Your task to perform on an android device: open app "Gboard" Image 0: 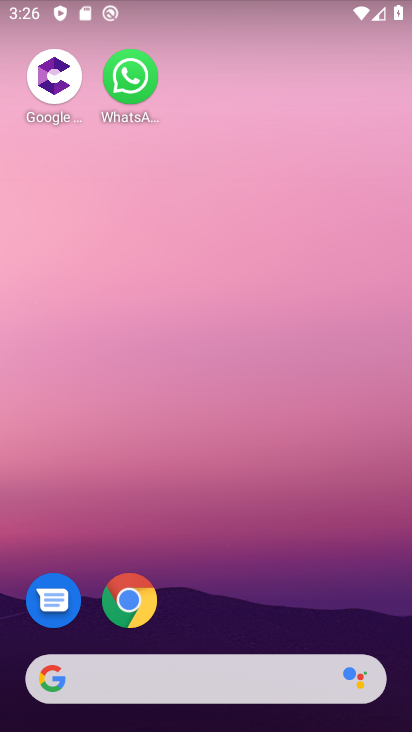
Step 0: press home button
Your task to perform on an android device: open app "Gboard" Image 1: 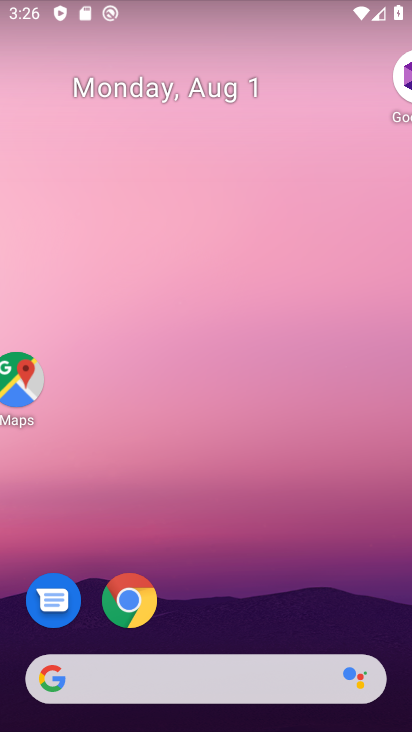
Step 1: drag from (302, 544) to (271, 96)
Your task to perform on an android device: open app "Gboard" Image 2: 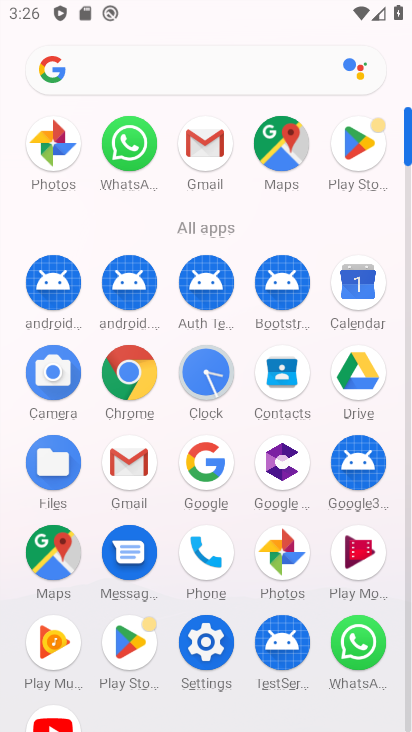
Step 2: click (351, 154)
Your task to perform on an android device: open app "Gboard" Image 3: 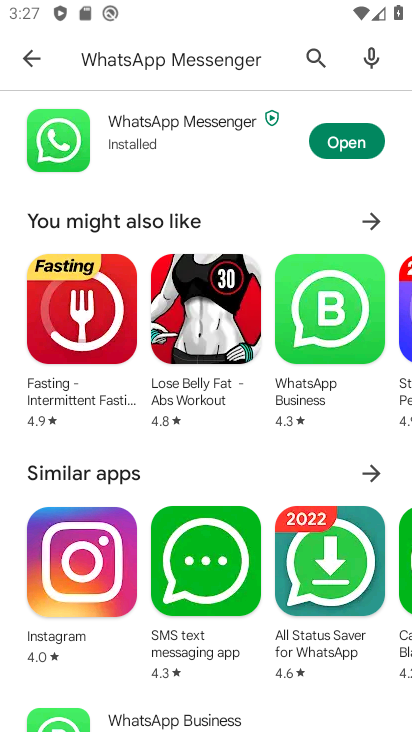
Step 3: click (112, 60)
Your task to perform on an android device: open app "Gboard" Image 4: 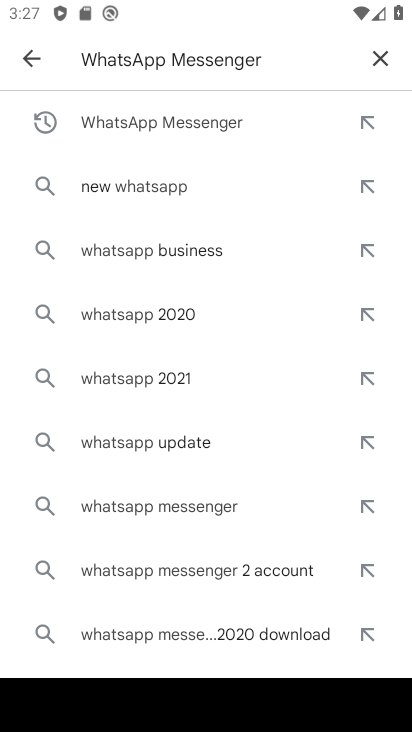
Step 4: click (378, 57)
Your task to perform on an android device: open app "Gboard" Image 5: 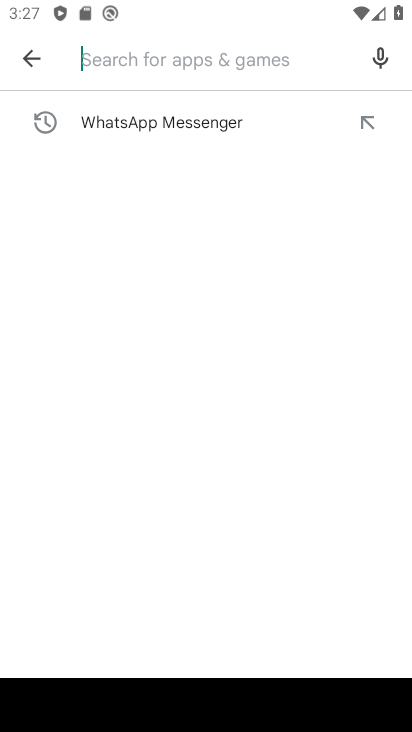
Step 5: type "Gboard"
Your task to perform on an android device: open app "Gboard" Image 6: 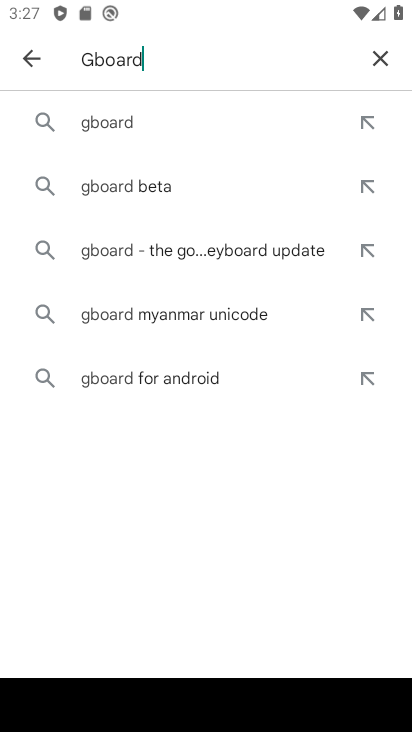
Step 6: press enter
Your task to perform on an android device: open app "Gboard" Image 7: 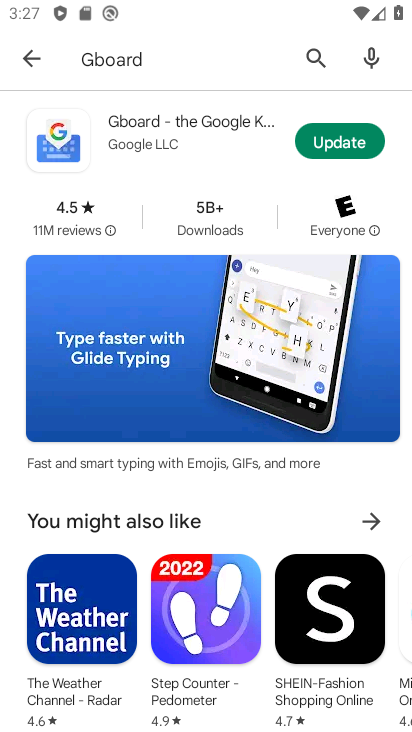
Step 7: click (227, 139)
Your task to perform on an android device: open app "Gboard" Image 8: 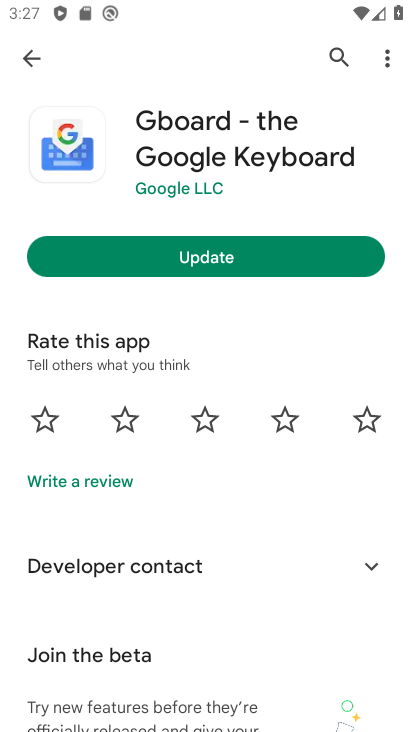
Step 8: task complete